Your task to perform on an android device: Open notification settings Image 0: 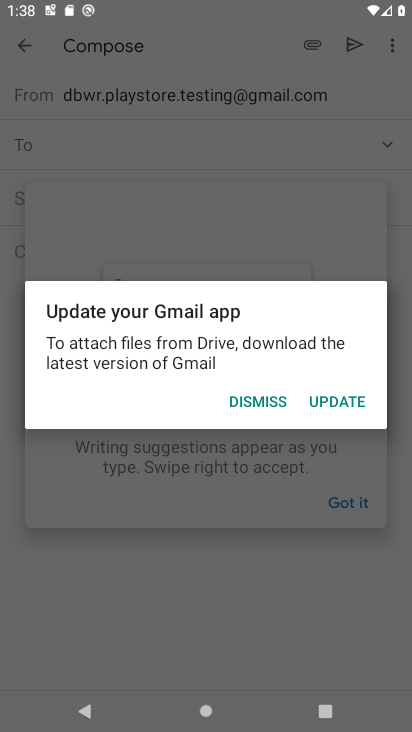
Step 0: click (357, 396)
Your task to perform on an android device: Open notification settings Image 1: 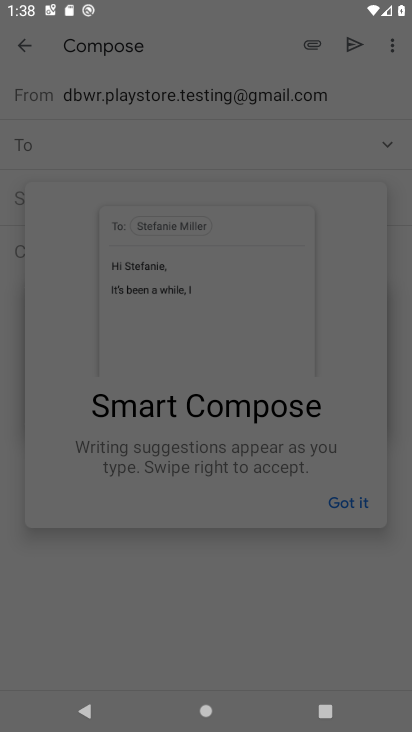
Step 1: press home button
Your task to perform on an android device: Open notification settings Image 2: 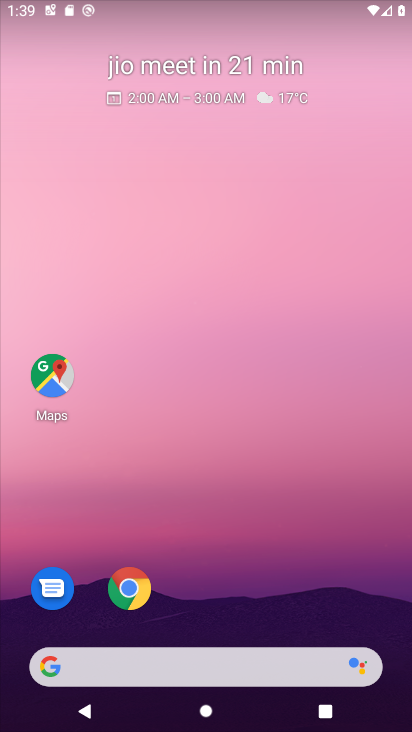
Step 2: drag from (262, 582) to (280, 10)
Your task to perform on an android device: Open notification settings Image 3: 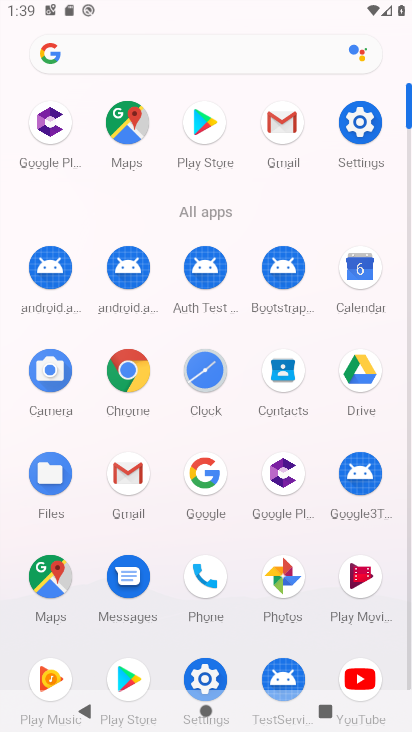
Step 3: click (356, 135)
Your task to perform on an android device: Open notification settings Image 4: 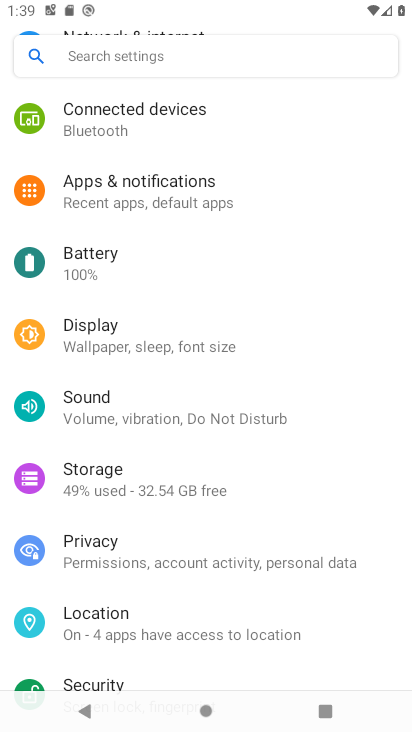
Step 4: click (191, 202)
Your task to perform on an android device: Open notification settings Image 5: 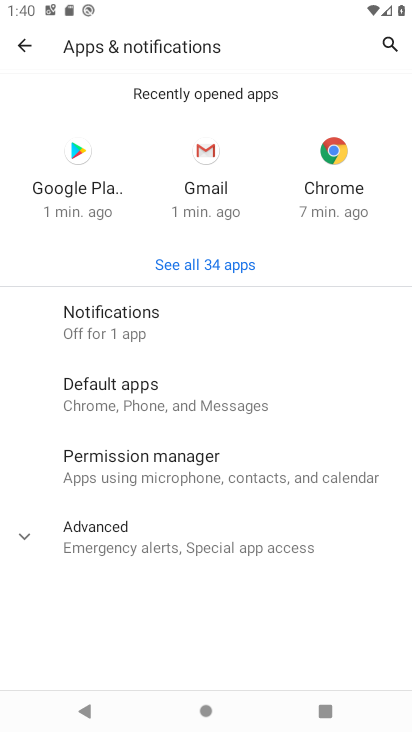
Step 5: task complete